Your task to perform on an android device: move an email to a new category in the gmail app Image 0: 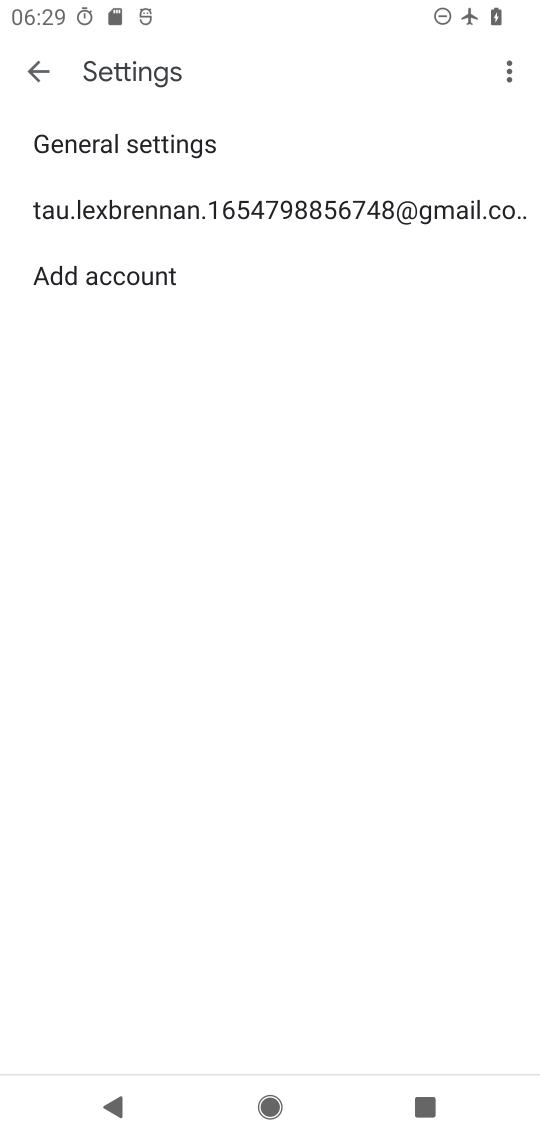
Step 0: press home button
Your task to perform on an android device: move an email to a new category in the gmail app Image 1: 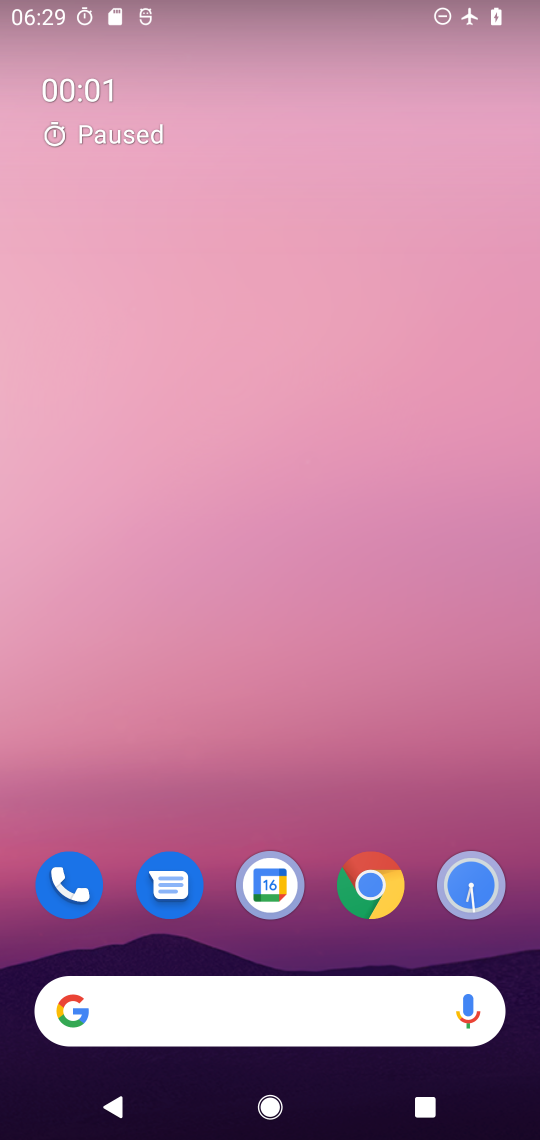
Step 1: drag from (213, 957) to (220, 484)
Your task to perform on an android device: move an email to a new category in the gmail app Image 2: 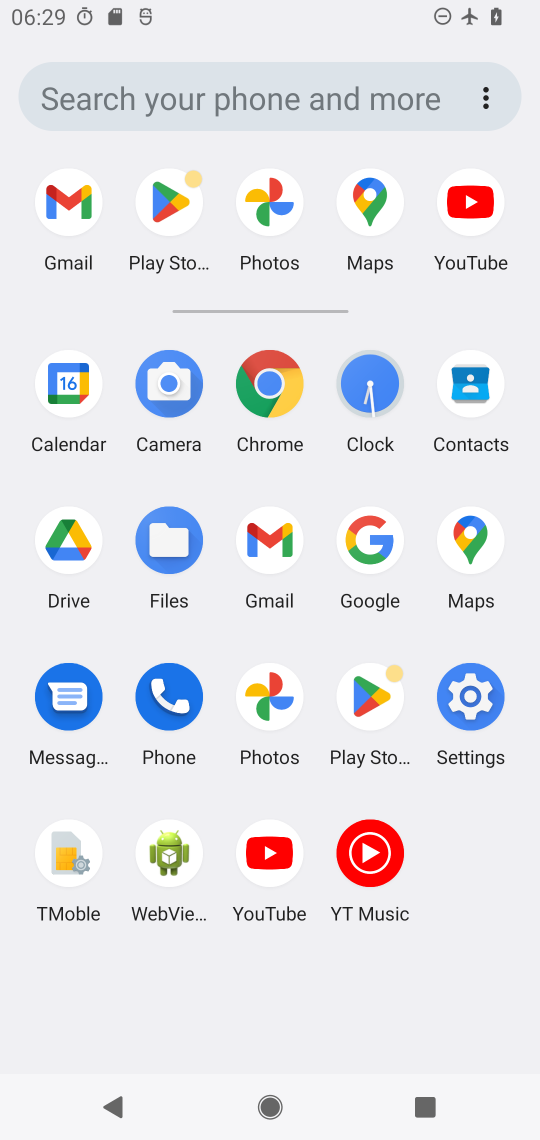
Step 2: click (57, 210)
Your task to perform on an android device: move an email to a new category in the gmail app Image 3: 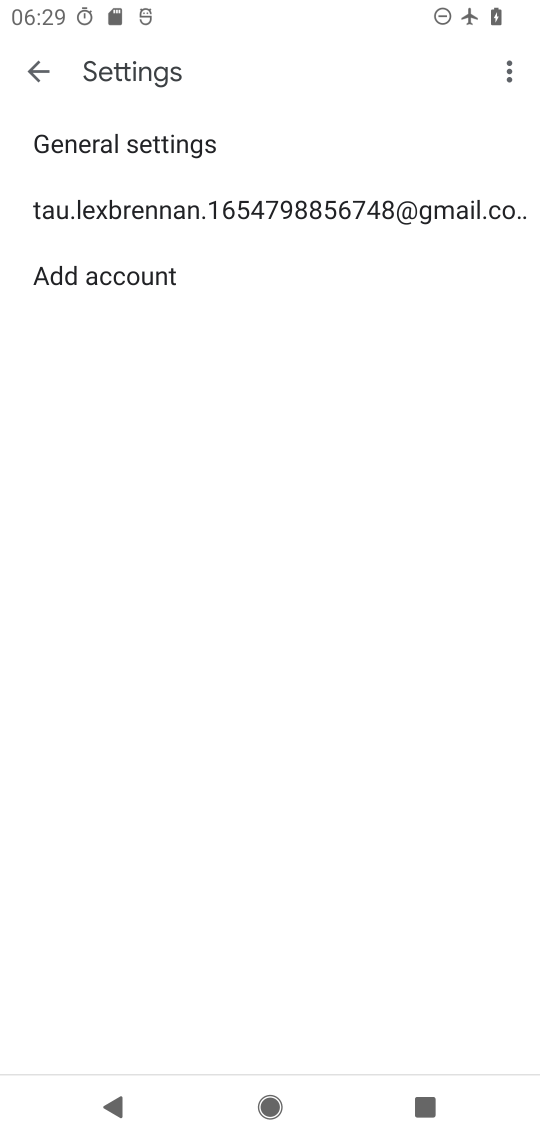
Step 3: click (115, 200)
Your task to perform on an android device: move an email to a new category in the gmail app Image 4: 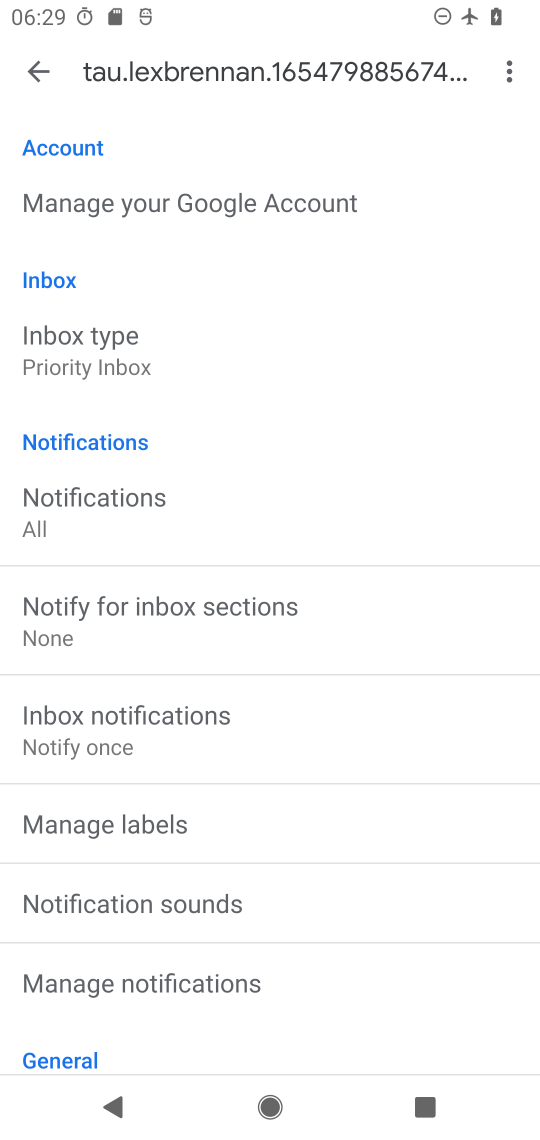
Step 4: click (42, 66)
Your task to perform on an android device: move an email to a new category in the gmail app Image 5: 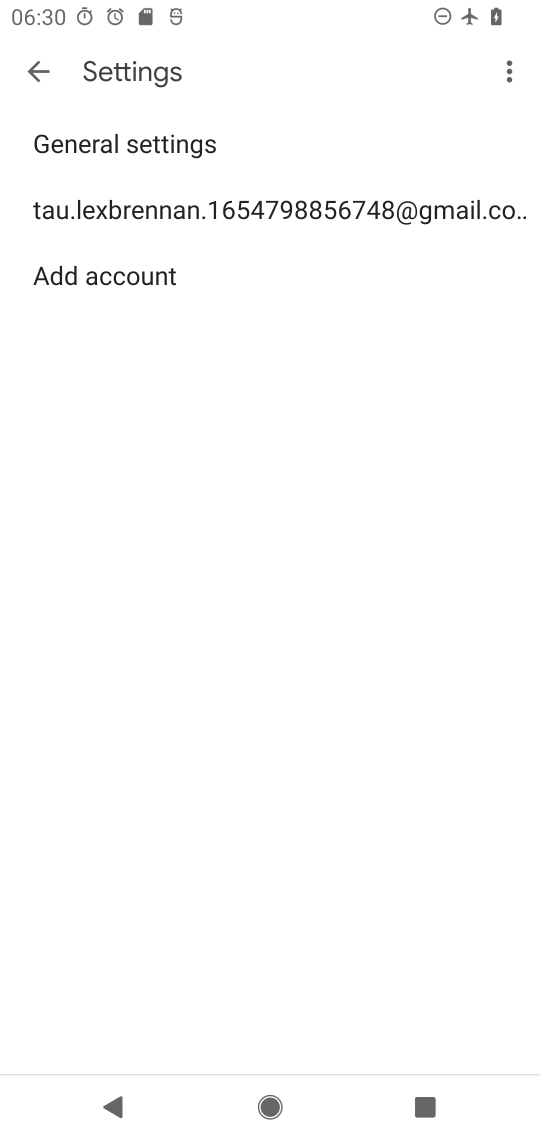
Step 5: click (32, 73)
Your task to perform on an android device: move an email to a new category in the gmail app Image 6: 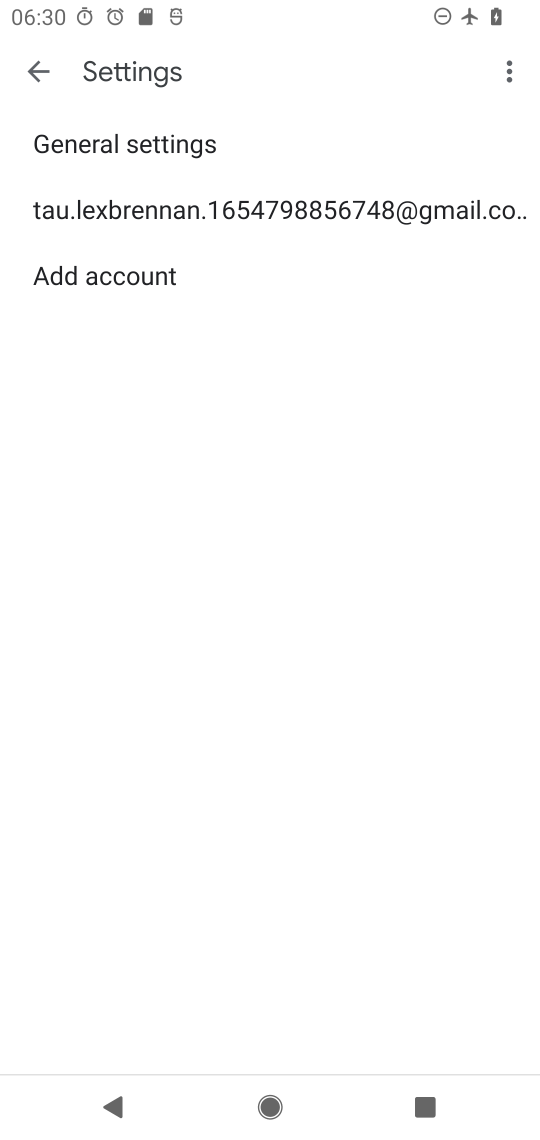
Step 6: click (42, 64)
Your task to perform on an android device: move an email to a new category in the gmail app Image 7: 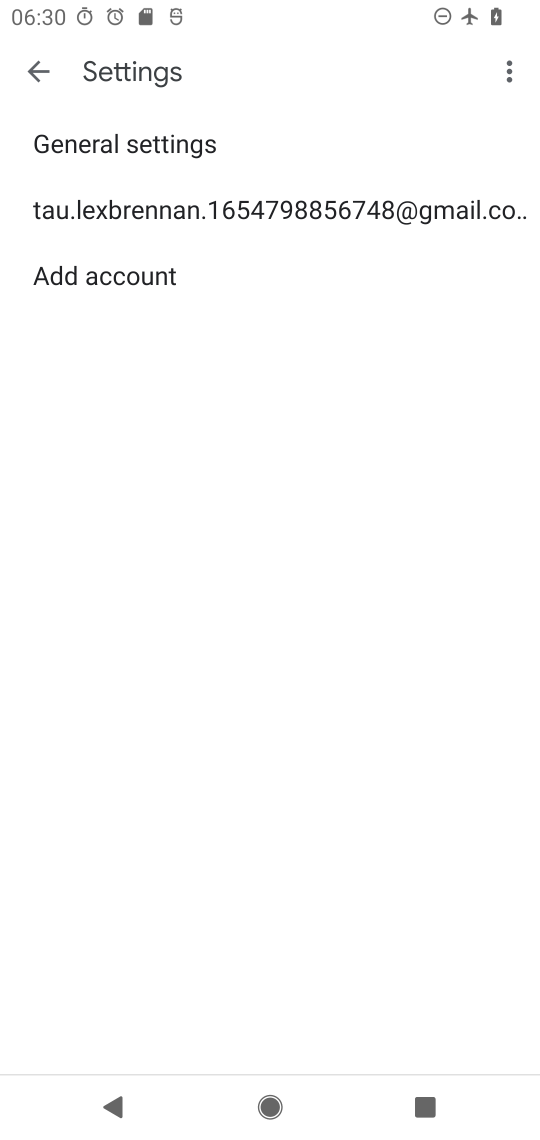
Step 7: click (44, 75)
Your task to perform on an android device: move an email to a new category in the gmail app Image 8: 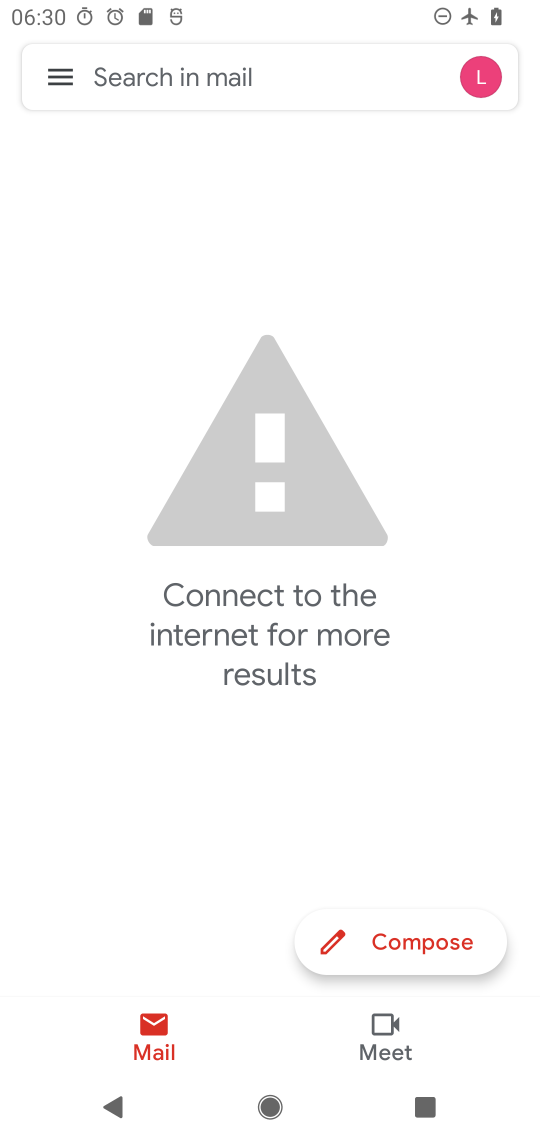
Step 8: click (42, 62)
Your task to perform on an android device: move an email to a new category in the gmail app Image 9: 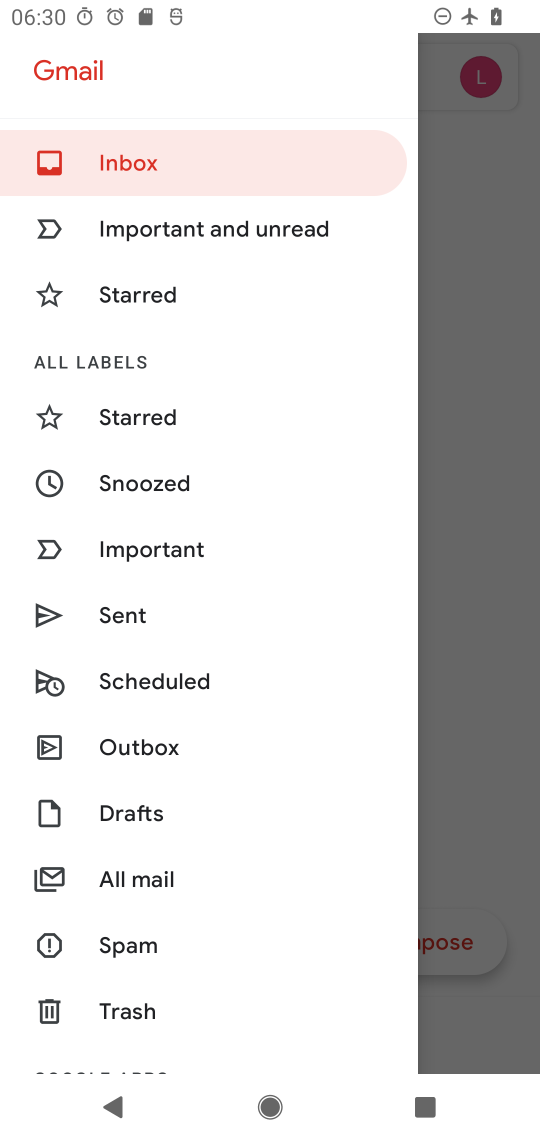
Step 9: click (155, 892)
Your task to perform on an android device: move an email to a new category in the gmail app Image 10: 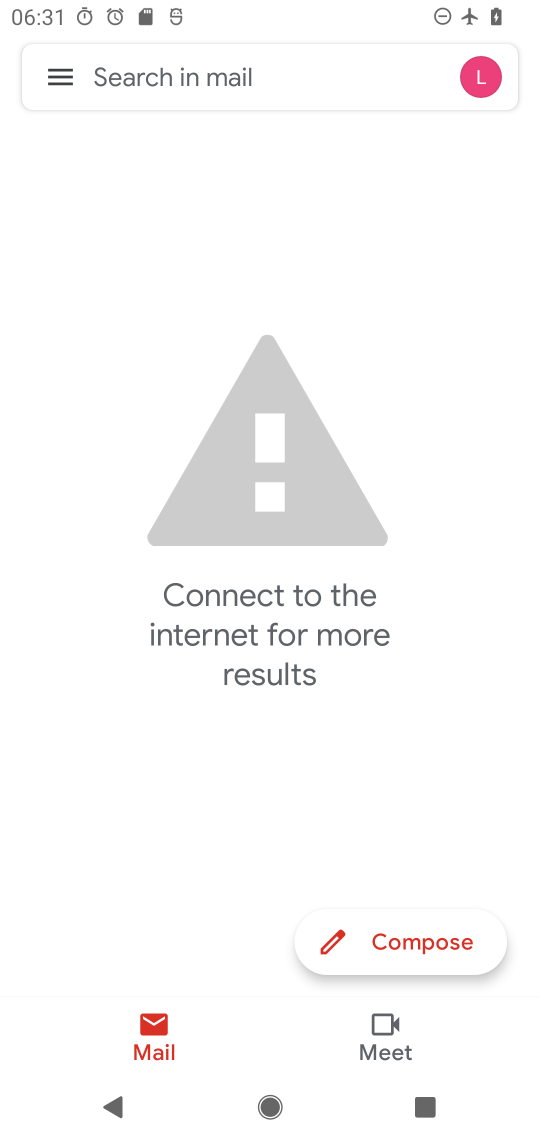
Step 10: task complete